Your task to perform on an android device: Open Google Chrome Image 0: 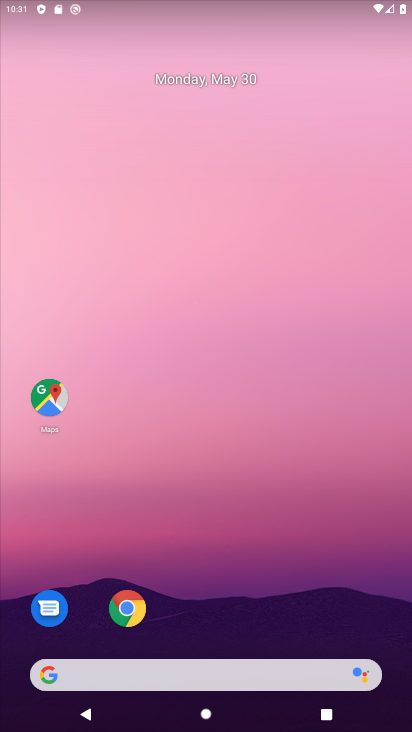
Step 0: drag from (278, 559) to (192, 5)
Your task to perform on an android device: Open Google Chrome Image 1: 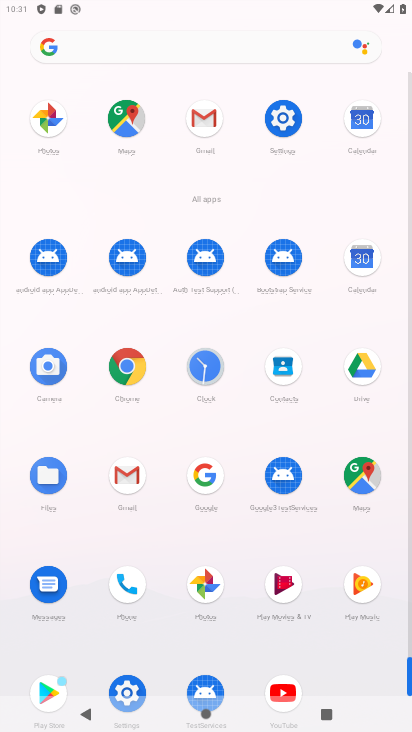
Step 1: drag from (16, 584) to (9, 183)
Your task to perform on an android device: Open Google Chrome Image 2: 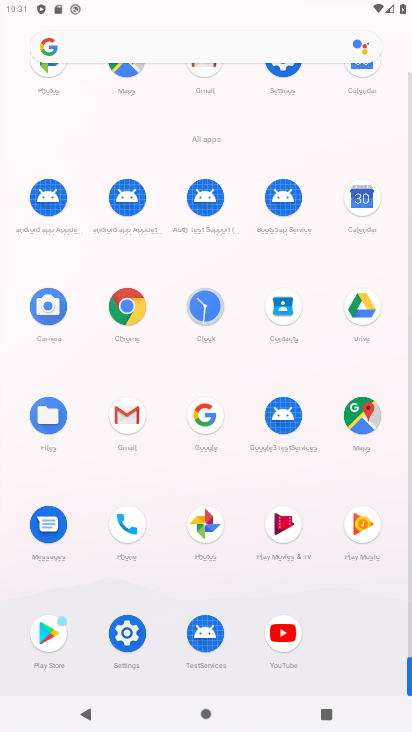
Step 2: click (124, 304)
Your task to perform on an android device: Open Google Chrome Image 3: 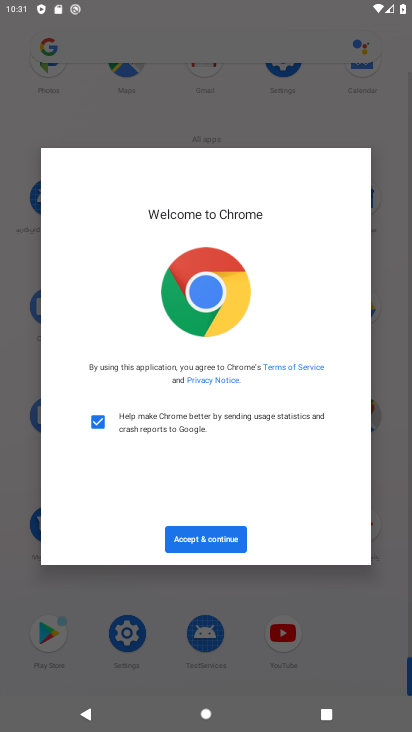
Step 3: click (224, 535)
Your task to perform on an android device: Open Google Chrome Image 4: 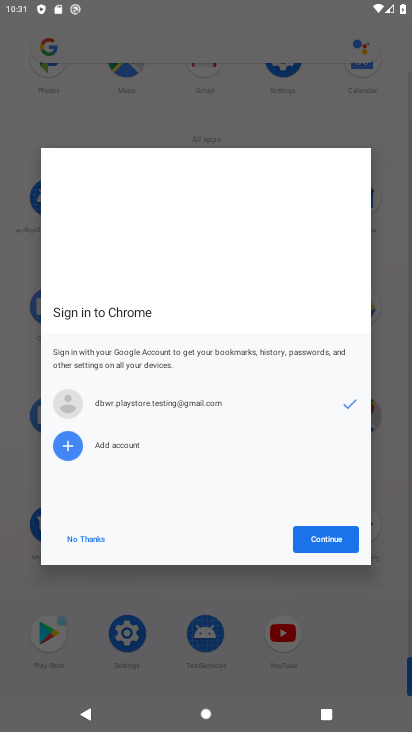
Step 4: click (298, 536)
Your task to perform on an android device: Open Google Chrome Image 5: 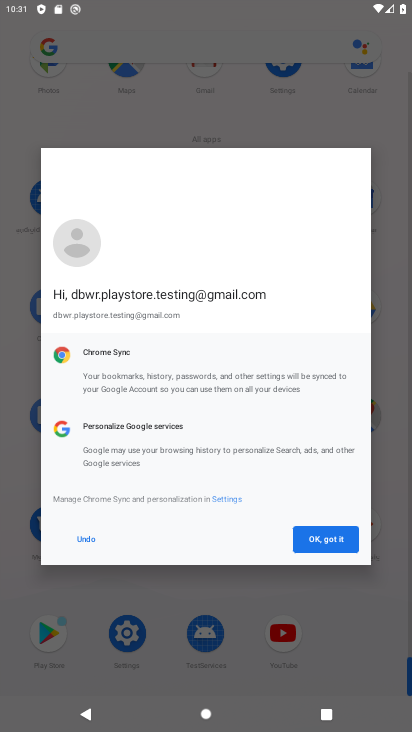
Step 5: click (338, 535)
Your task to perform on an android device: Open Google Chrome Image 6: 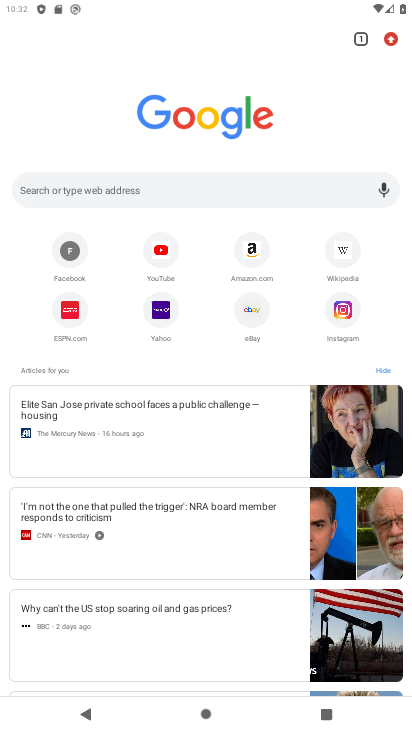
Step 6: task complete